Your task to perform on an android device: Open the phone app and click the voicemail tab. Image 0: 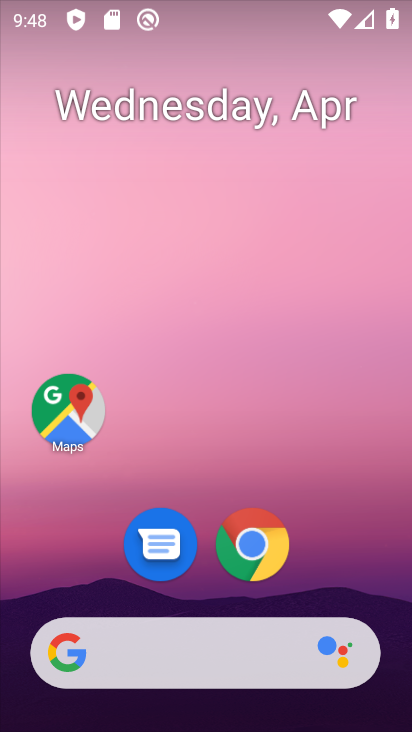
Step 0: drag from (364, 576) to (326, 44)
Your task to perform on an android device: Open the phone app and click the voicemail tab. Image 1: 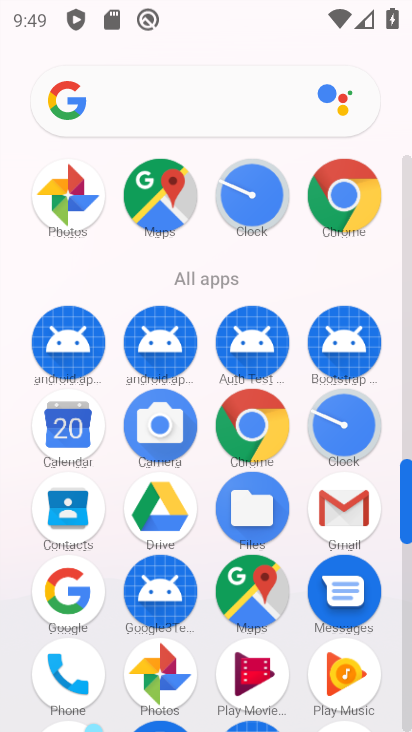
Step 1: click (85, 677)
Your task to perform on an android device: Open the phone app and click the voicemail tab. Image 2: 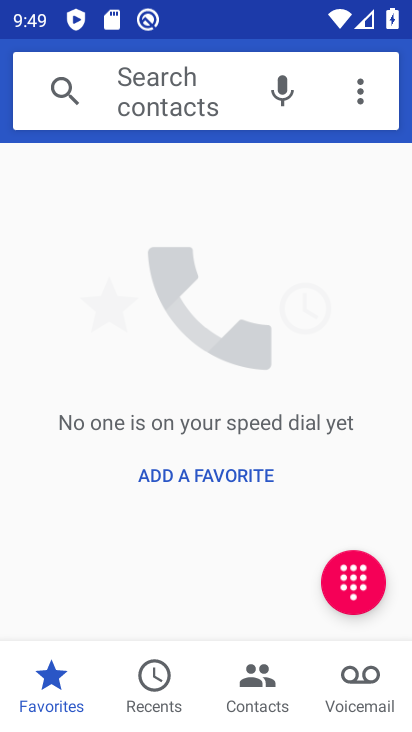
Step 2: click (359, 688)
Your task to perform on an android device: Open the phone app and click the voicemail tab. Image 3: 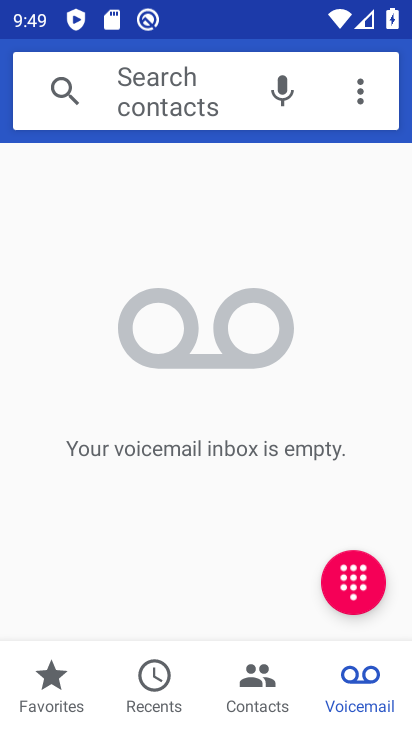
Step 3: task complete